Your task to perform on an android device: Open location settings Image 0: 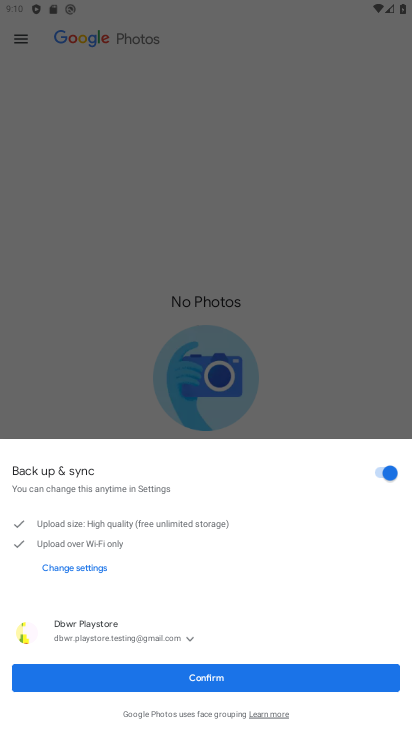
Step 0: press home button
Your task to perform on an android device: Open location settings Image 1: 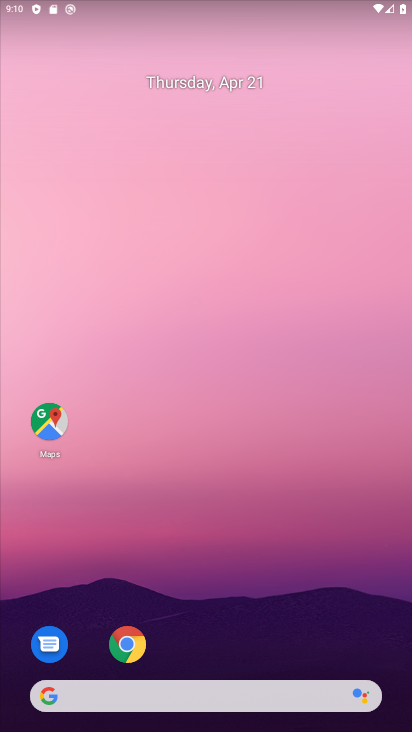
Step 1: drag from (255, 616) to (261, 130)
Your task to perform on an android device: Open location settings Image 2: 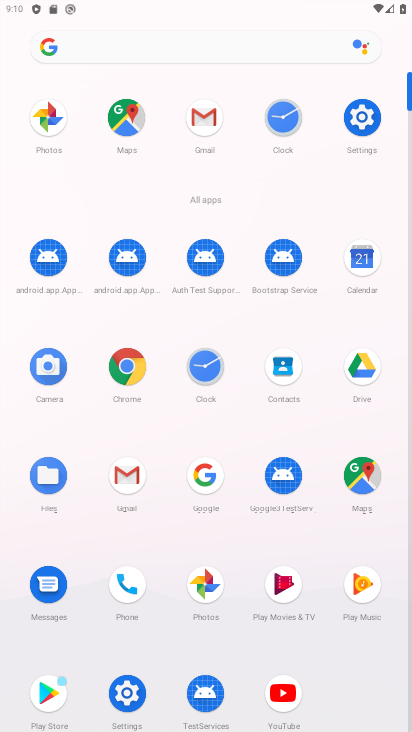
Step 2: click (369, 108)
Your task to perform on an android device: Open location settings Image 3: 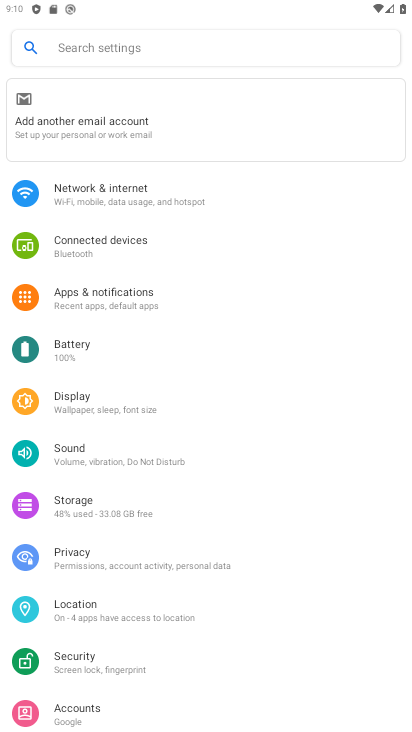
Step 3: click (249, 607)
Your task to perform on an android device: Open location settings Image 4: 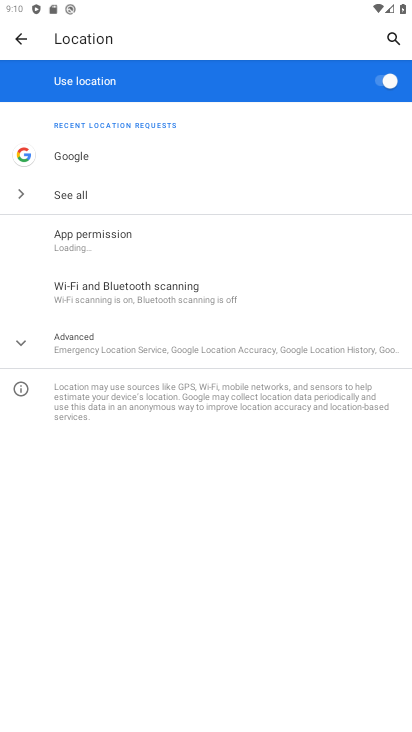
Step 4: task complete